Your task to perform on an android device: Go to Maps Image 0: 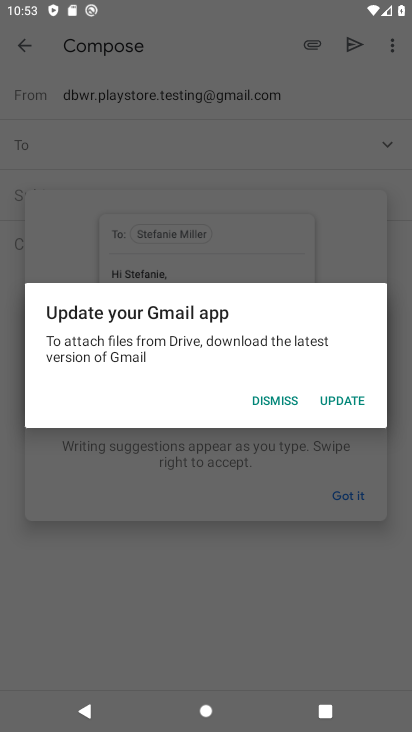
Step 0: press home button
Your task to perform on an android device: Go to Maps Image 1: 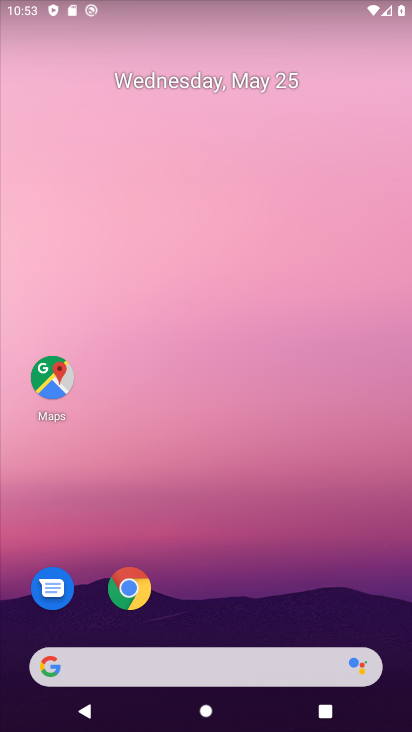
Step 1: click (37, 391)
Your task to perform on an android device: Go to Maps Image 2: 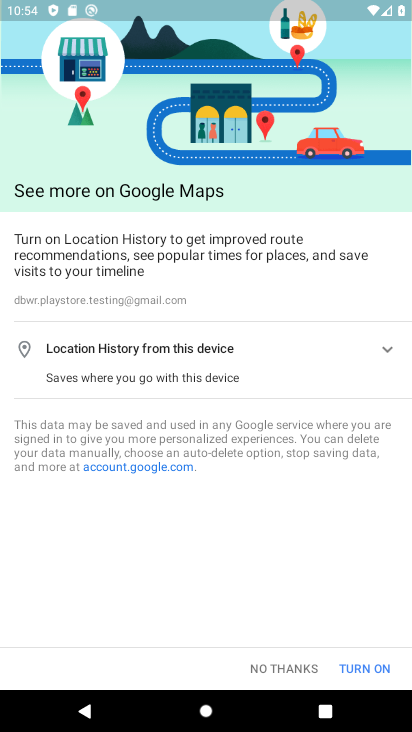
Step 2: click (373, 665)
Your task to perform on an android device: Go to Maps Image 3: 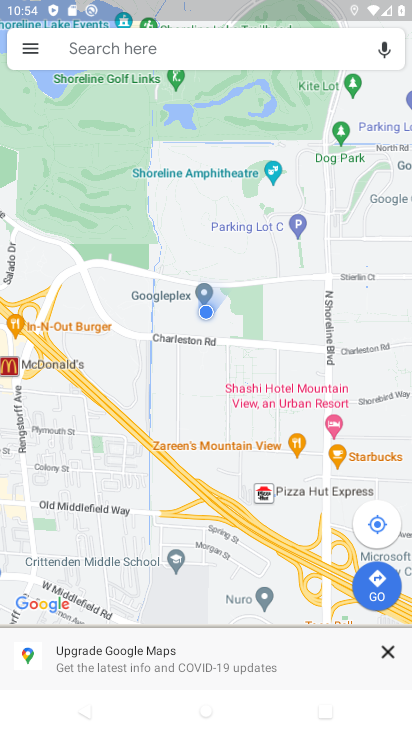
Step 3: task complete